Your task to perform on an android device: turn off sleep mode Image 0: 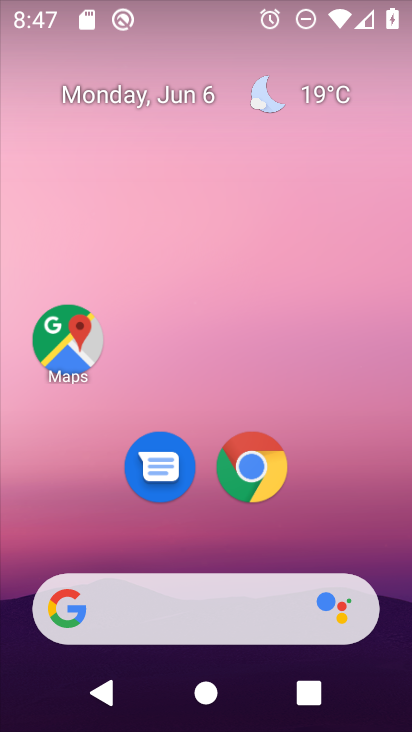
Step 0: drag from (364, 463) to (409, 181)
Your task to perform on an android device: turn off sleep mode Image 1: 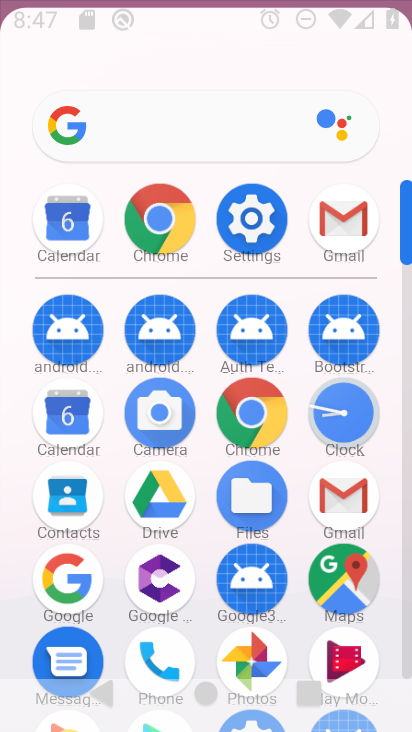
Step 1: drag from (247, 227) to (231, 49)
Your task to perform on an android device: turn off sleep mode Image 2: 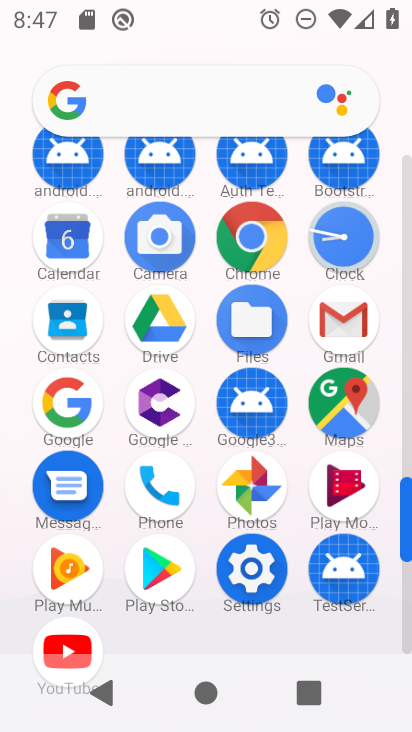
Step 2: click (260, 572)
Your task to perform on an android device: turn off sleep mode Image 3: 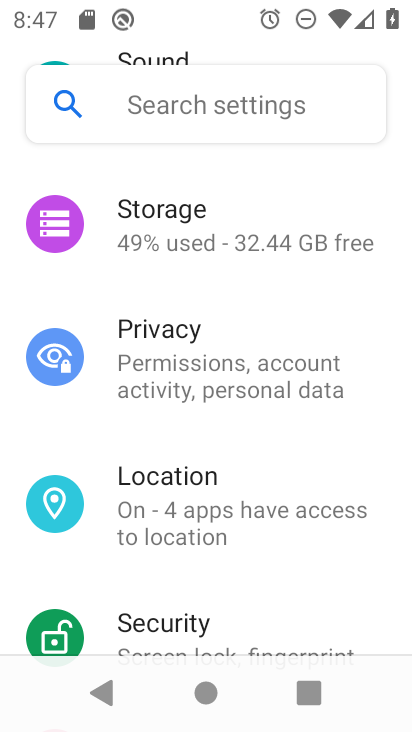
Step 3: drag from (367, 301) to (363, 442)
Your task to perform on an android device: turn off sleep mode Image 4: 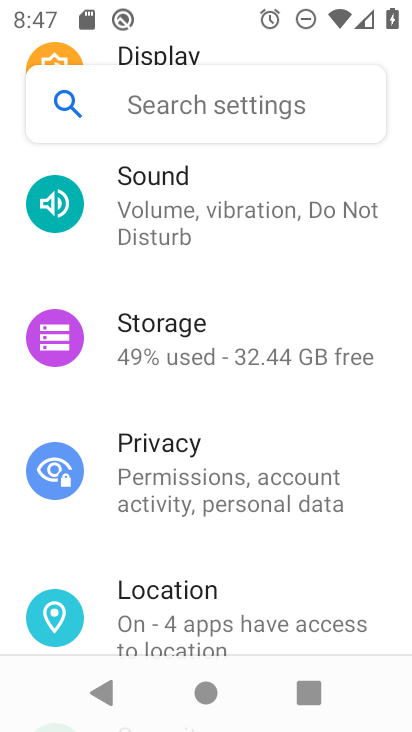
Step 4: drag from (351, 265) to (346, 430)
Your task to perform on an android device: turn off sleep mode Image 5: 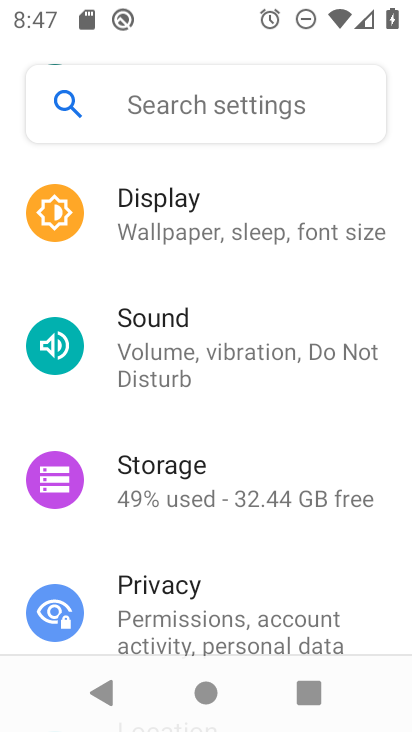
Step 5: drag from (365, 278) to (372, 426)
Your task to perform on an android device: turn off sleep mode Image 6: 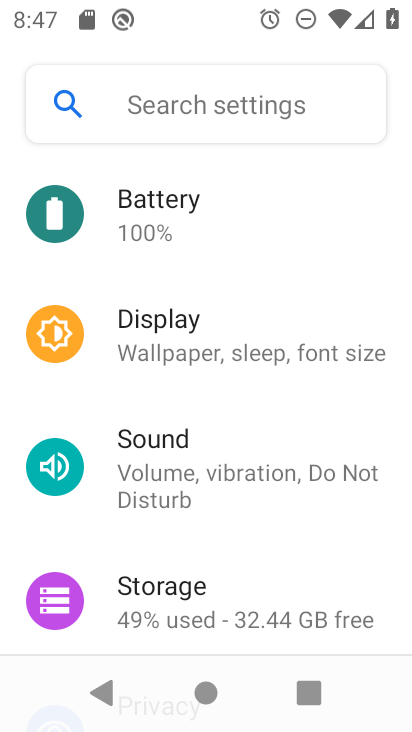
Step 6: drag from (363, 254) to (378, 405)
Your task to perform on an android device: turn off sleep mode Image 7: 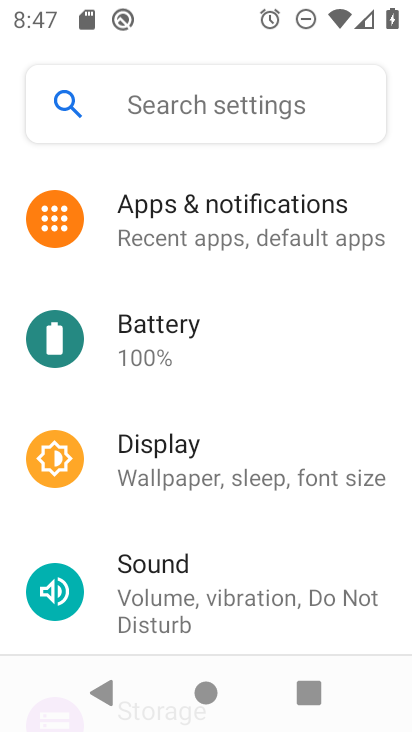
Step 7: drag from (356, 277) to (365, 415)
Your task to perform on an android device: turn off sleep mode Image 8: 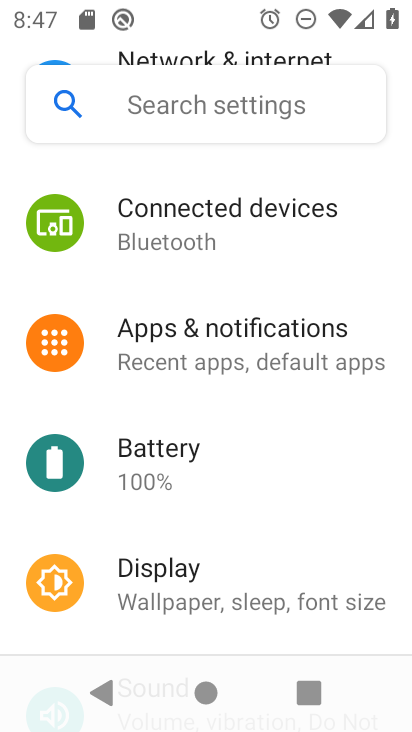
Step 8: drag from (346, 244) to (362, 385)
Your task to perform on an android device: turn off sleep mode Image 9: 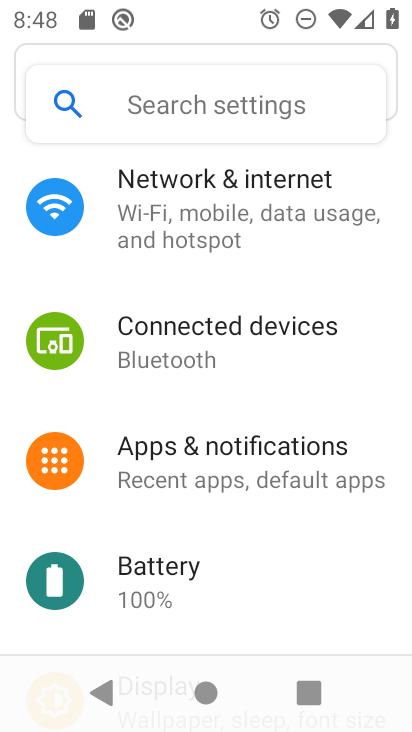
Step 9: drag from (356, 542) to (348, 347)
Your task to perform on an android device: turn off sleep mode Image 10: 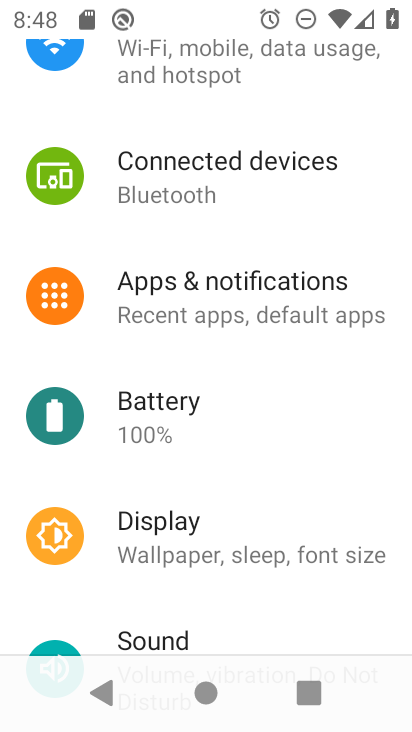
Step 10: drag from (312, 483) to (338, 308)
Your task to perform on an android device: turn off sleep mode Image 11: 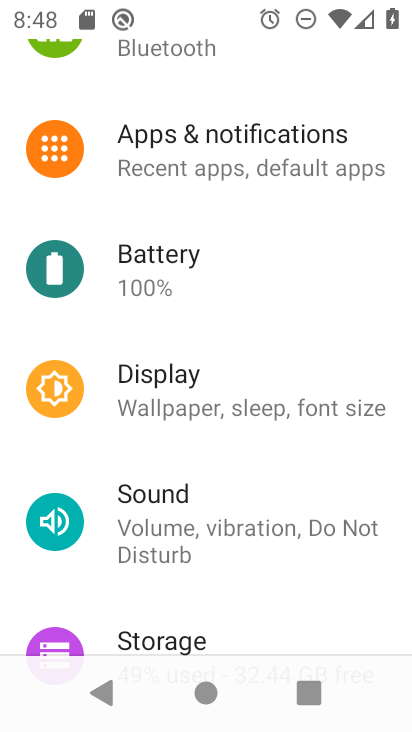
Step 11: click (287, 406)
Your task to perform on an android device: turn off sleep mode Image 12: 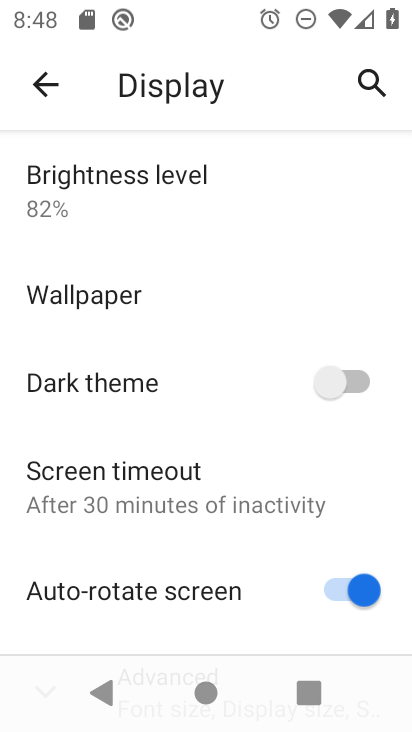
Step 12: task complete